Your task to perform on an android device: create a new album in the google photos Image 0: 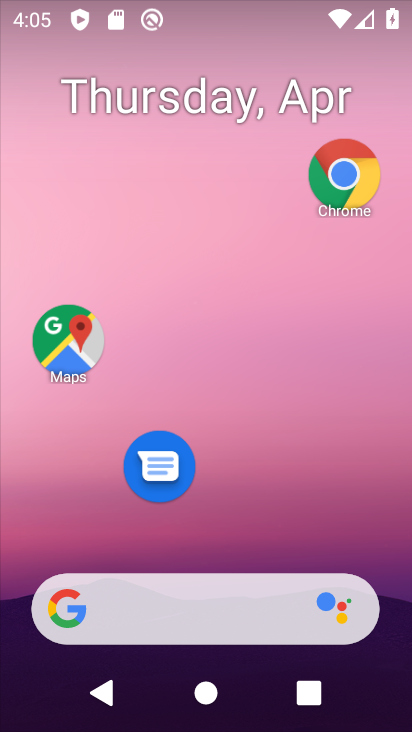
Step 0: drag from (232, 449) to (290, 87)
Your task to perform on an android device: create a new album in the google photos Image 1: 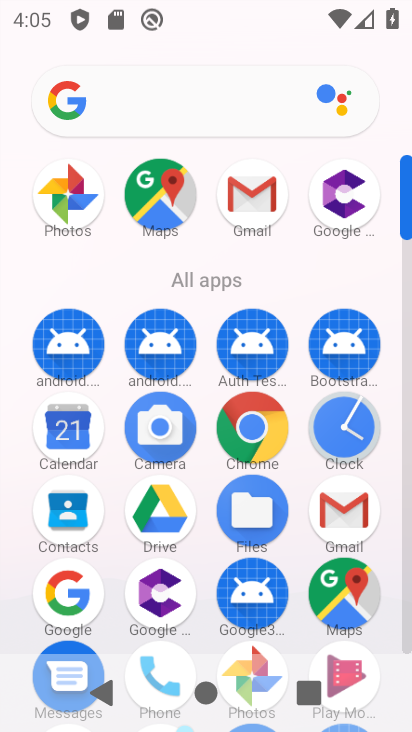
Step 1: drag from (280, 590) to (314, 325)
Your task to perform on an android device: create a new album in the google photos Image 2: 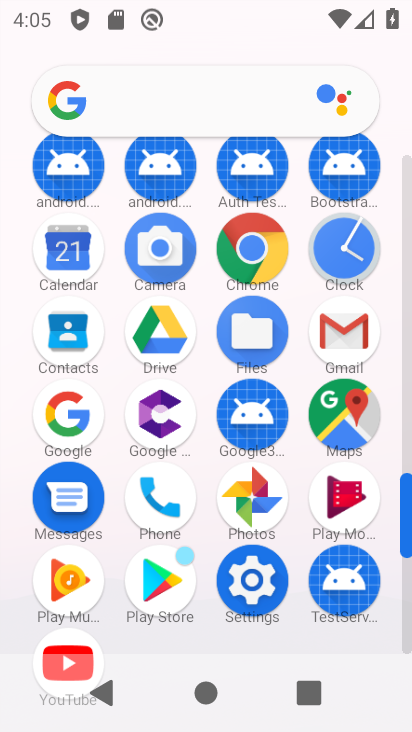
Step 2: click (267, 510)
Your task to perform on an android device: create a new album in the google photos Image 3: 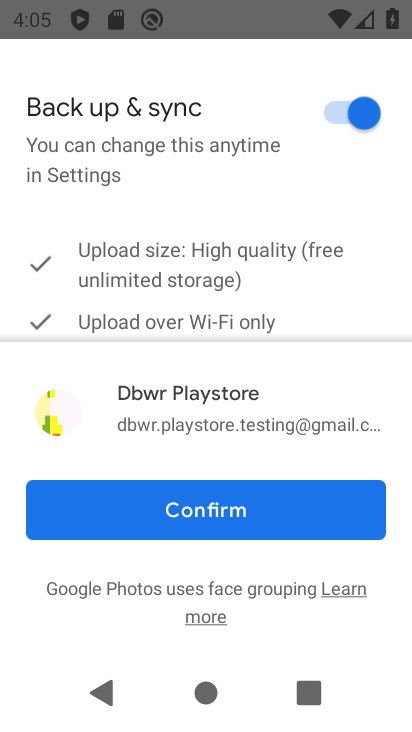
Step 3: click (242, 530)
Your task to perform on an android device: create a new album in the google photos Image 4: 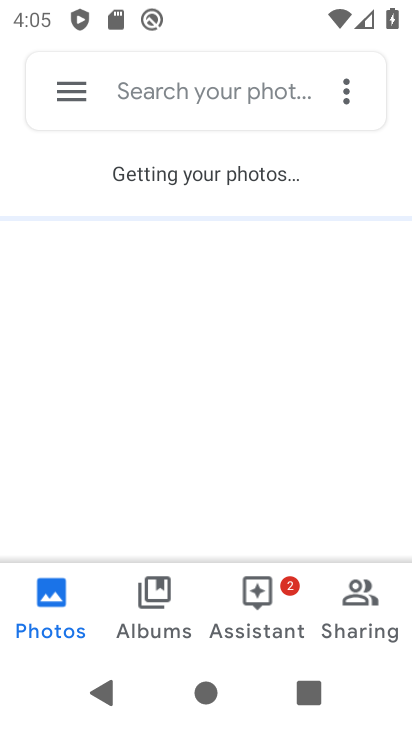
Step 4: click (345, 101)
Your task to perform on an android device: create a new album in the google photos Image 5: 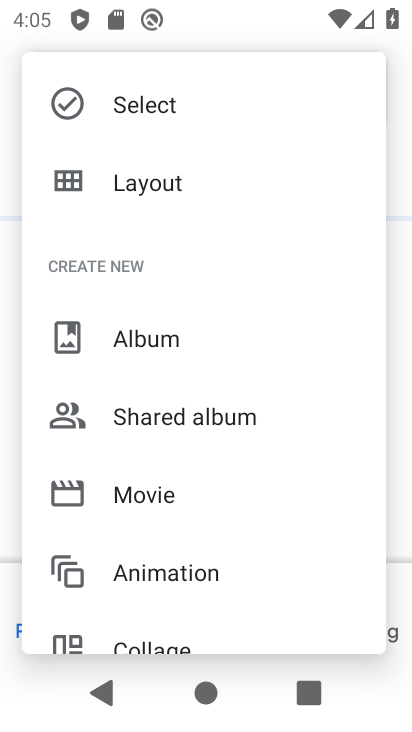
Step 5: drag from (222, 564) to (309, 326)
Your task to perform on an android device: create a new album in the google photos Image 6: 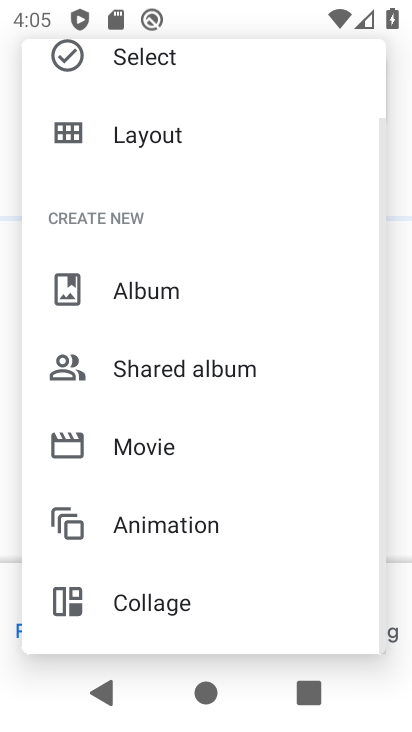
Step 6: click (192, 295)
Your task to perform on an android device: create a new album in the google photos Image 7: 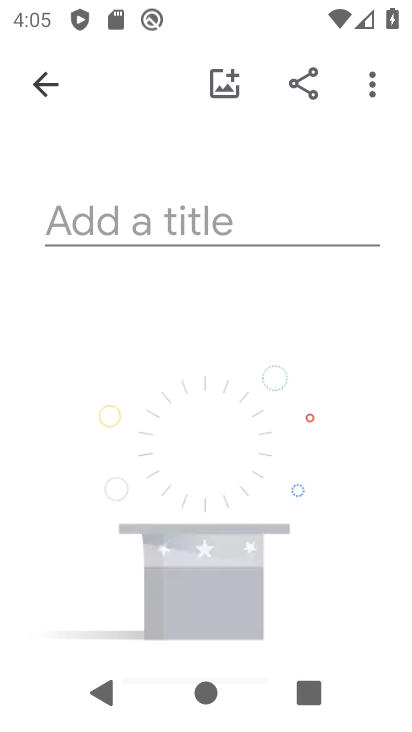
Step 7: click (197, 220)
Your task to perform on an android device: create a new album in the google photos Image 8: 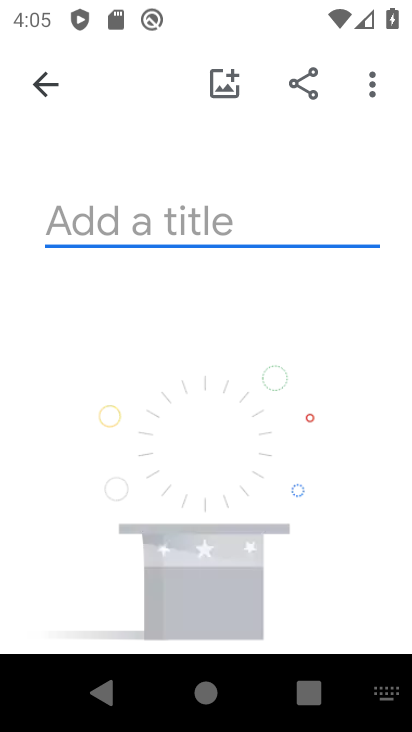
Step 8: type "1996"
Your task to perform on an android device: create a new album in the google photos Image 9: 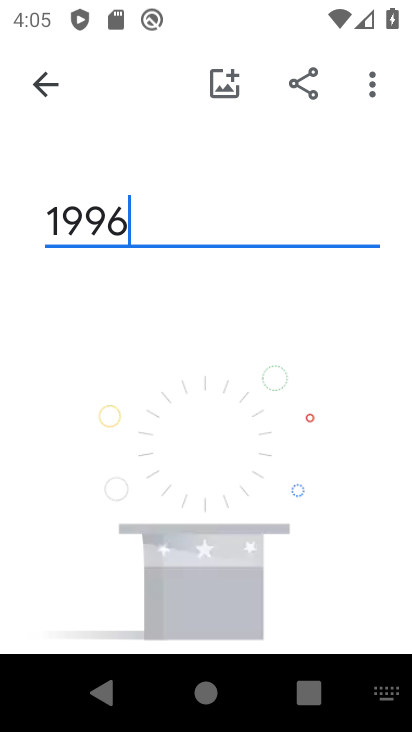
Step 9: click (230, 81)
Your task to perform on an android device: create a new album in the google photos Image 10: 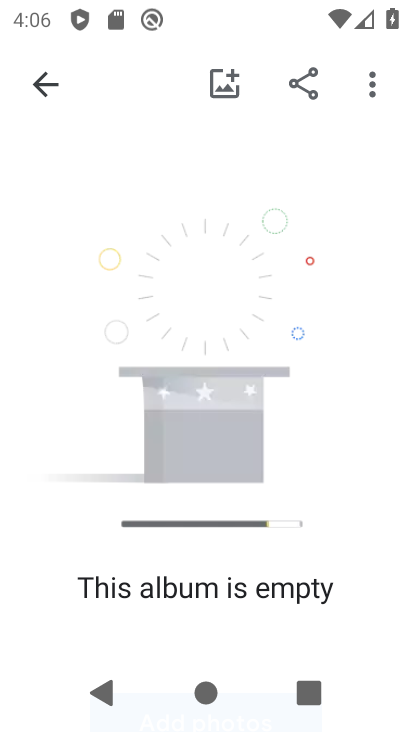
Step 10: click (234, 100)
Your task to perform on an android device: create a new album in the google photos Image 11: 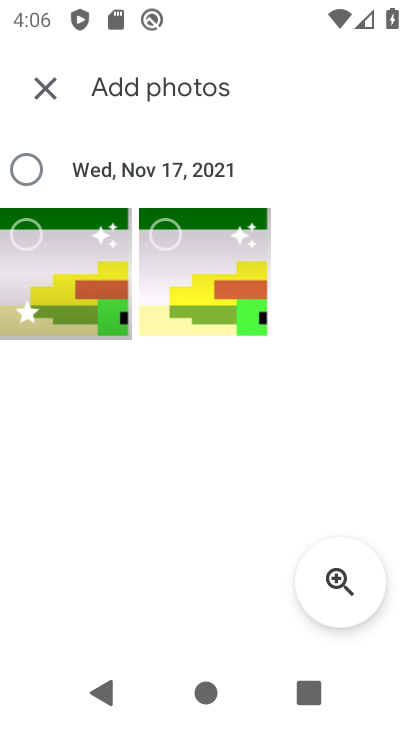
Step 11: click (31, 171)
Your task to perform on an android device: create a new album in the google photos Image 12: 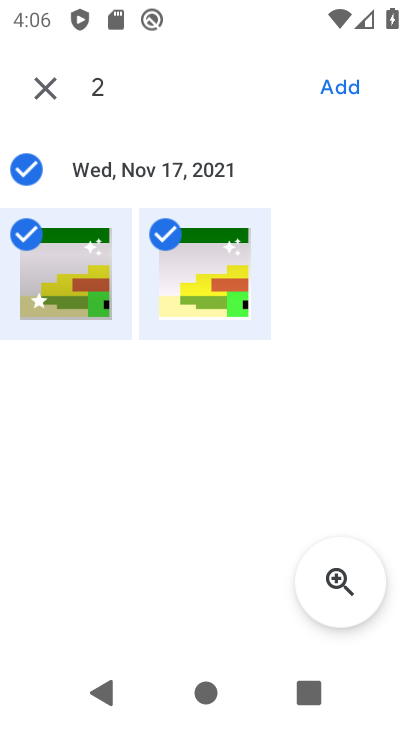
Step 12: click (357, 91)
Your task to perform on an android device: create a new album in the google photos Image 13: 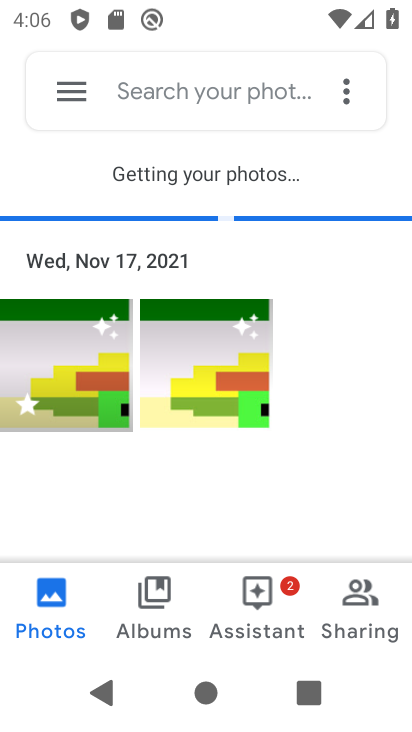
Step 13: click (117, 386)
Your task to perform on an android device: create a new album in the google photos Image 14: 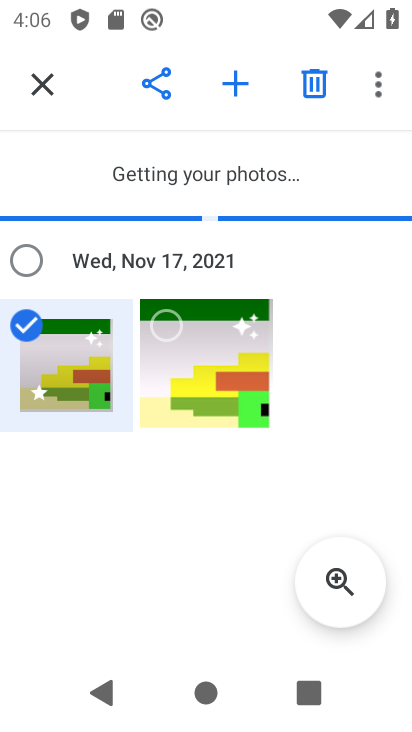
Step 14: click (182, 328)
Your task to perform on an android device: create a new album in the google photos Image 15: 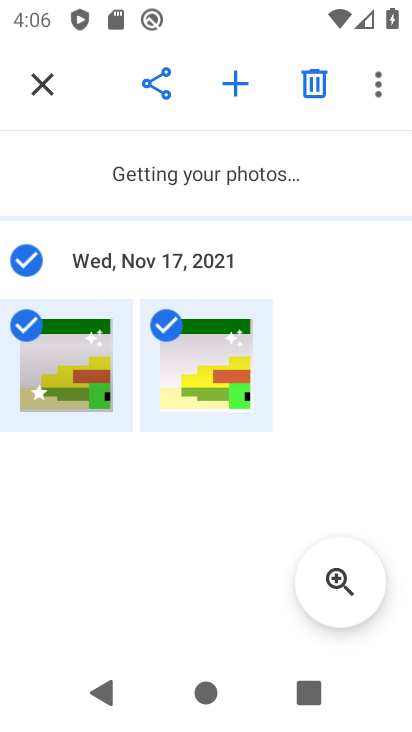
Step 15: click (230, 95)
Your task to perform on an android device: create a new album in the google photos Image 16: 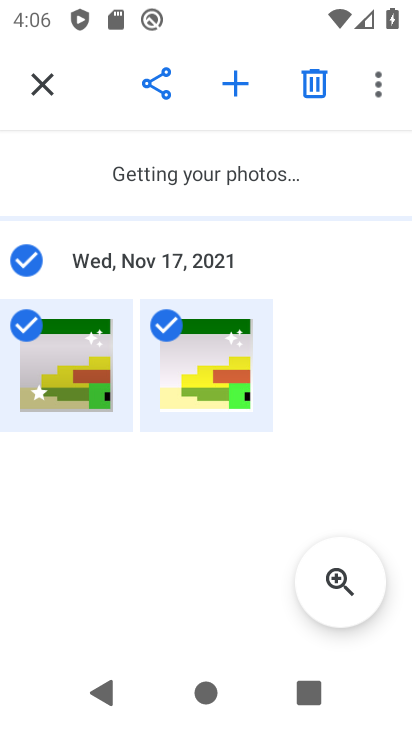
Step 16: click (238, 87)
Your task to perform on an android device: create a new album in the google photos Image 17: 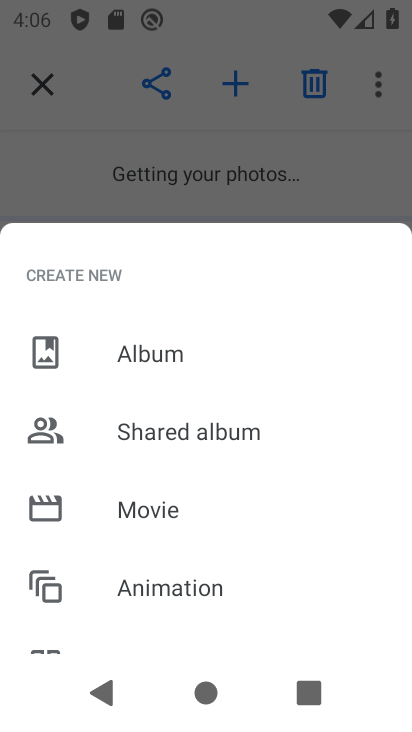
Step 17: click (217, 363)
Your task to perform on an android device: create a new album in the google photos Image 18: 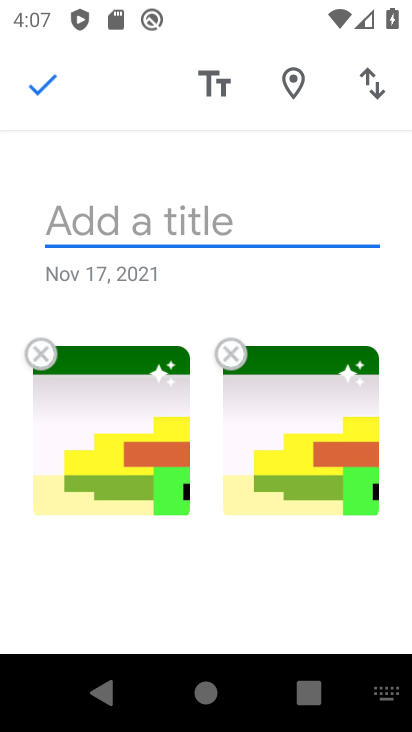
Step 18: type "1996"
Your task to perform on an android device: create a new album in the google photos Image 19: 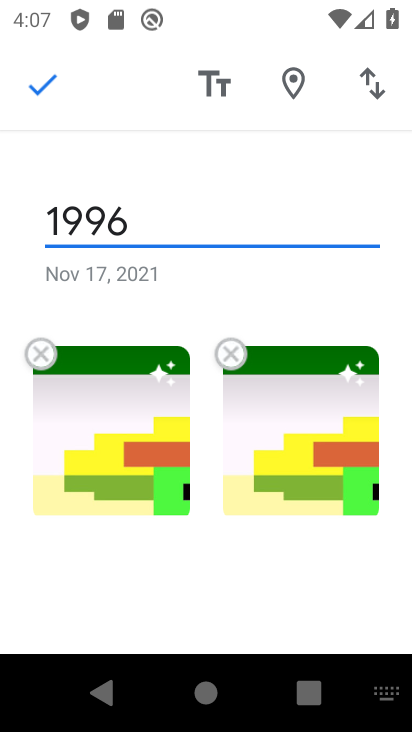
Step 19: click (49, 89)
Your task to perform on an android device: create a new album in the google photos Image 20: 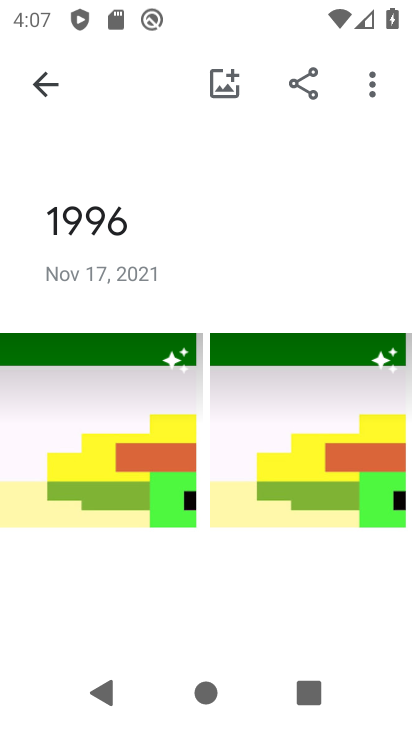
Step 20: task complete